Your task to perform on an android device: What is the recent news? Image 0: 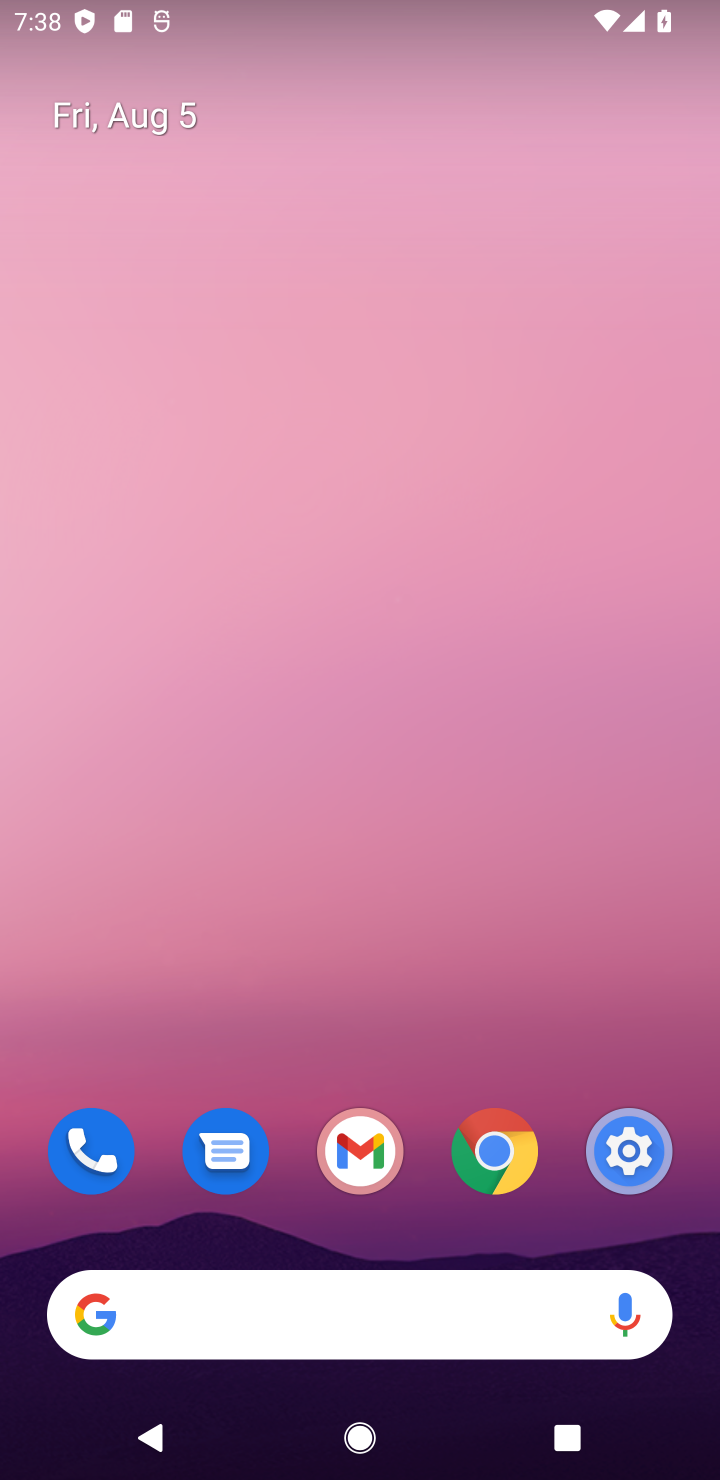
Step 0: click (302, 1301)
Your task to perform on an android device: What is the recent news? Image 1: 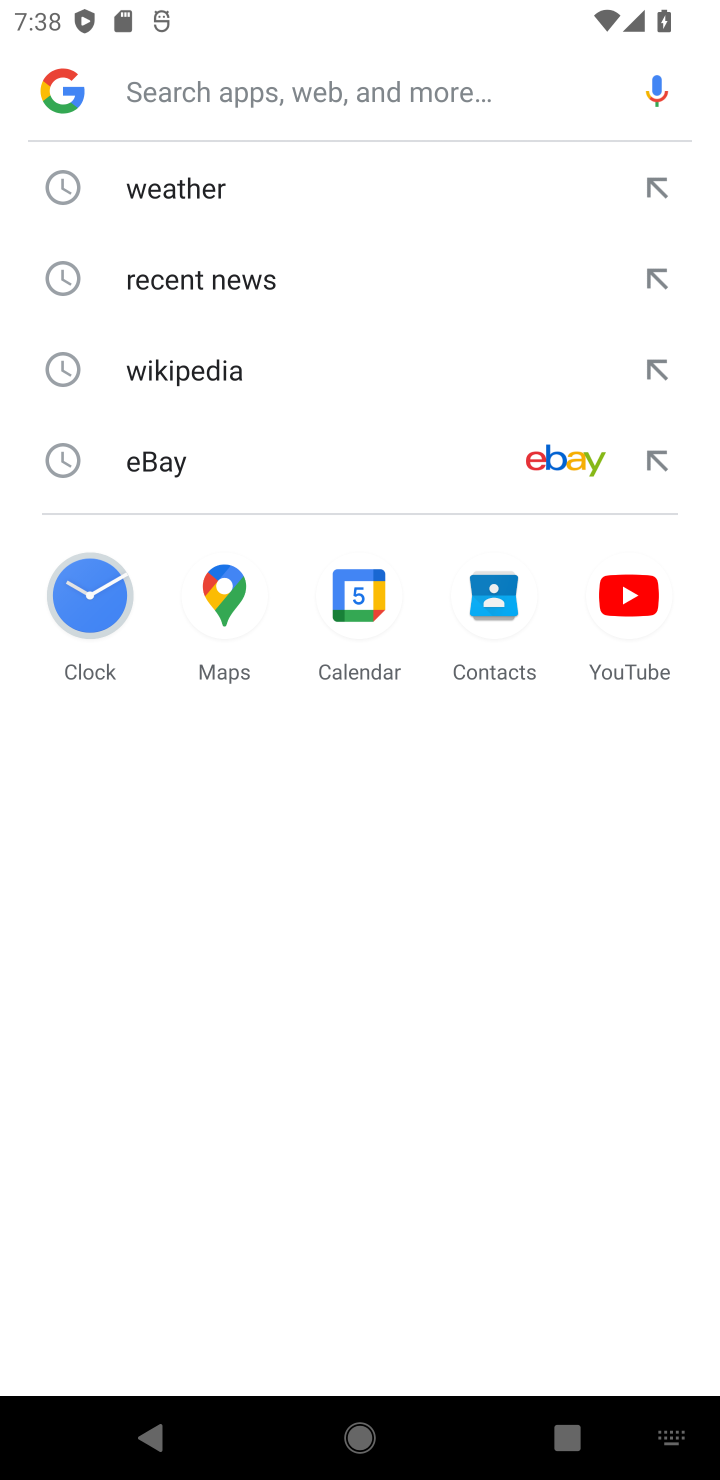
Step 1: click (239, 290)
Your task to perform on an android device: What is the recent news? Image 2: 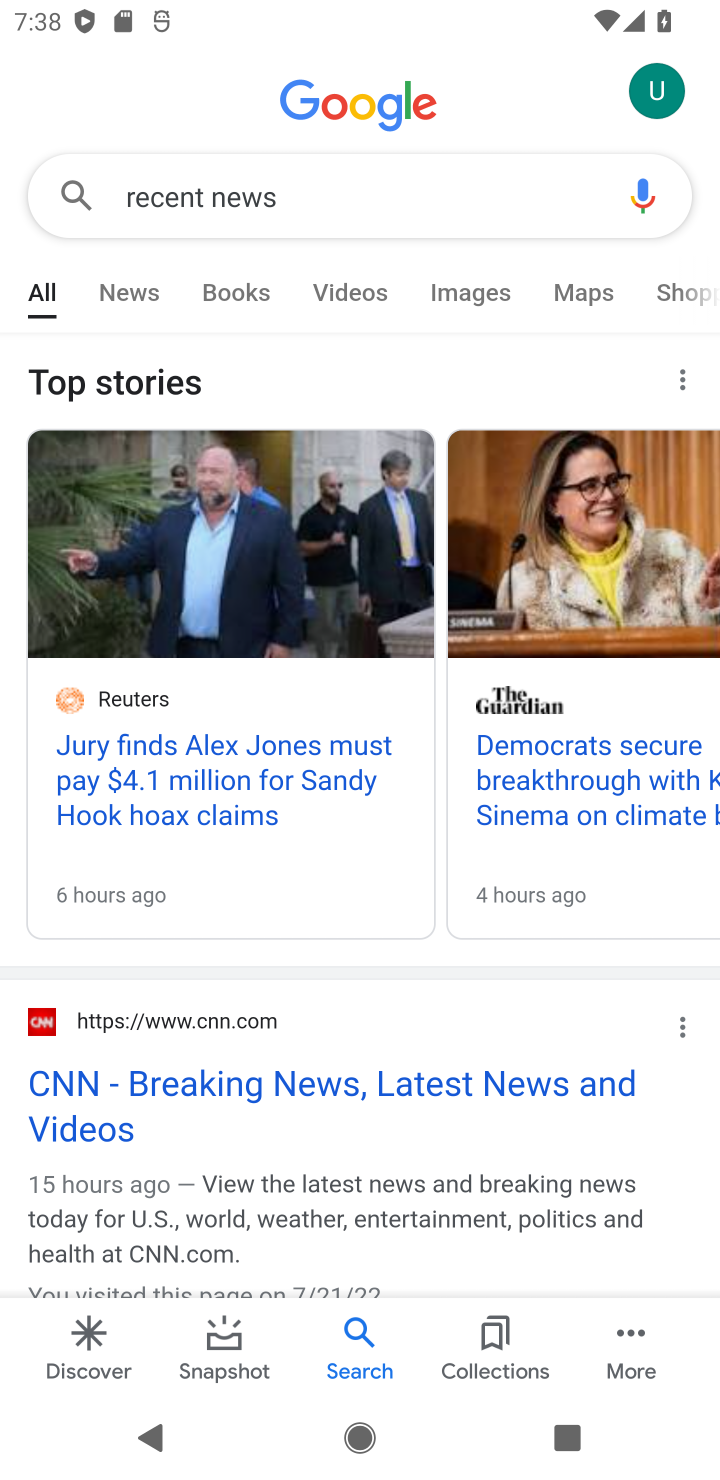
Step 2: task complete